Your task to perform on an android device: open app "PUBG MOBILE" (install if not already installed) Image 0: 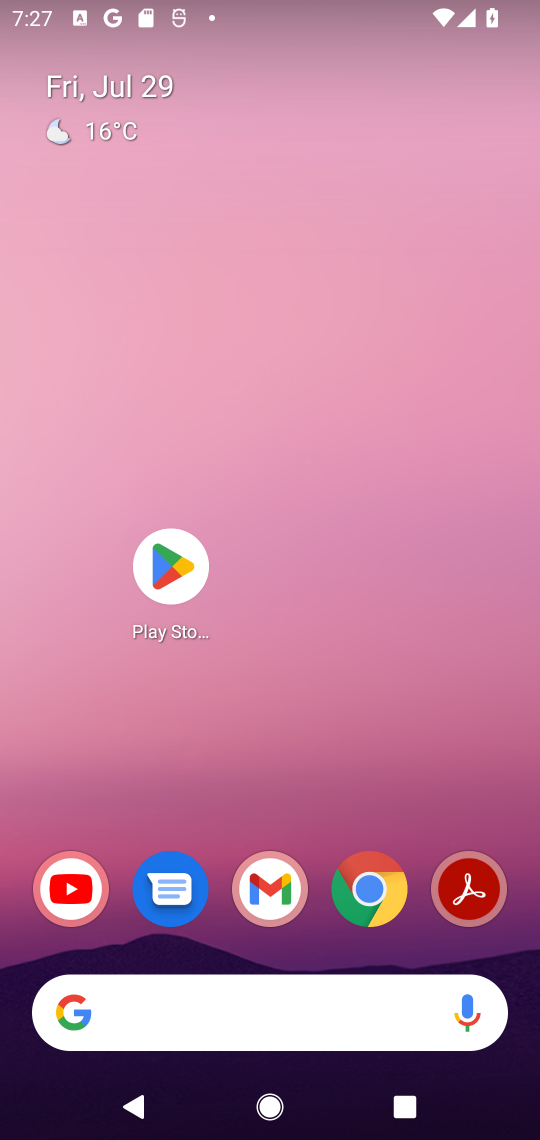
Step 0: click (178, 569)
Your task to perform on an android device: open app "PUBG MOBILE" (install if not already installed) Image 1: 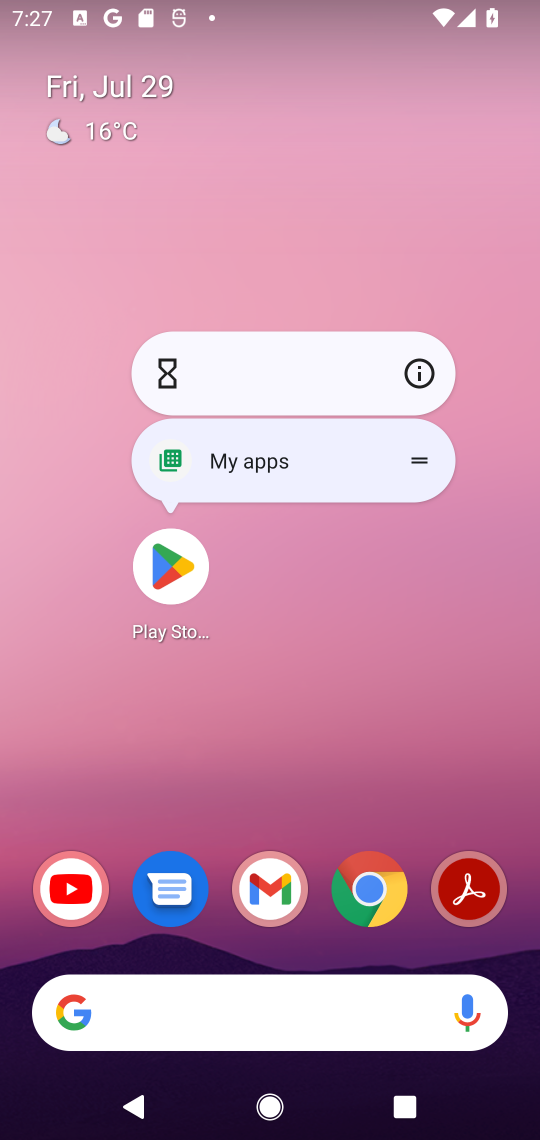
Step 1: click (170, 571)
Your task to perform on an android device: open app "PUBG MOBILE" (install if not already installed) Image 2: 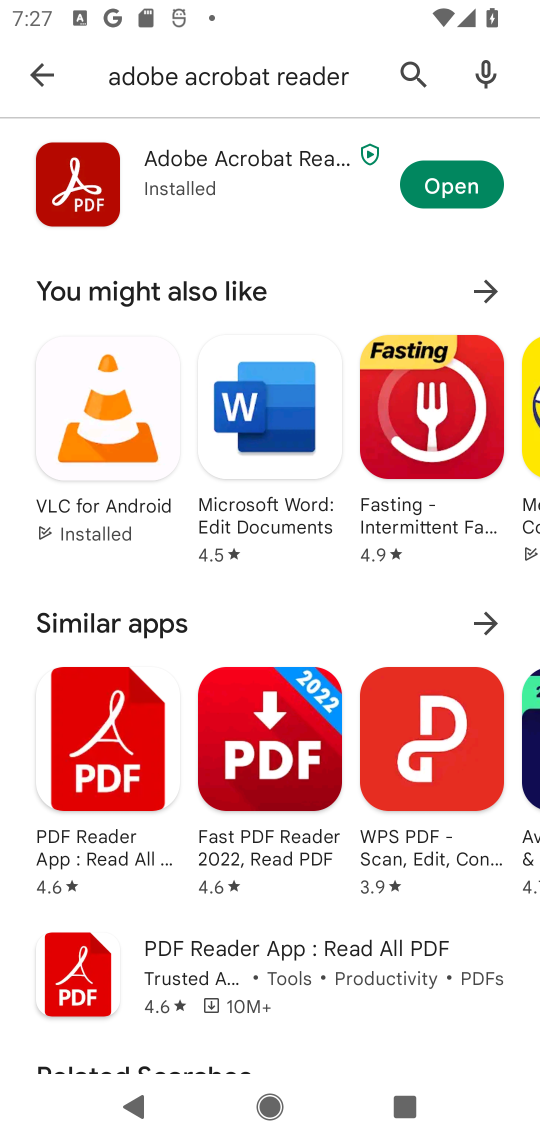
Step 2: click (414, 75)
Your task to perform on an android device: open app "PUBG MOBILE" (install if not already installed) Image 3: 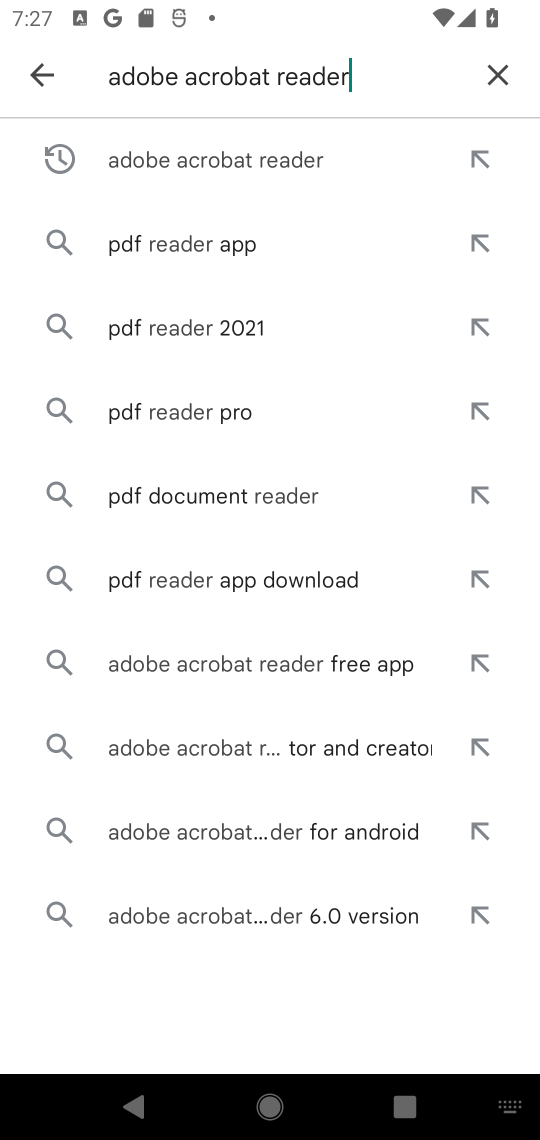
Step 3: click (496, 63)
Your task to perform on an android device: open app "PUBG MOBILE" (install if not already installed) Image 4: 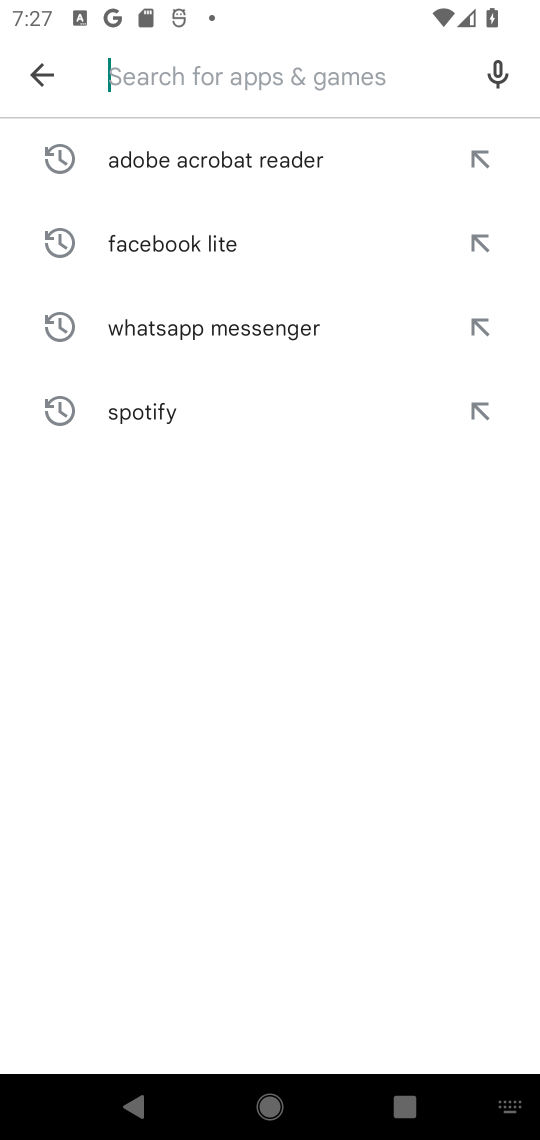
Step 4: type "PUBG MOBILE"
Your task to perform on an android device: open app "PUBG MOBILE" (install if not already installed) Image 5: 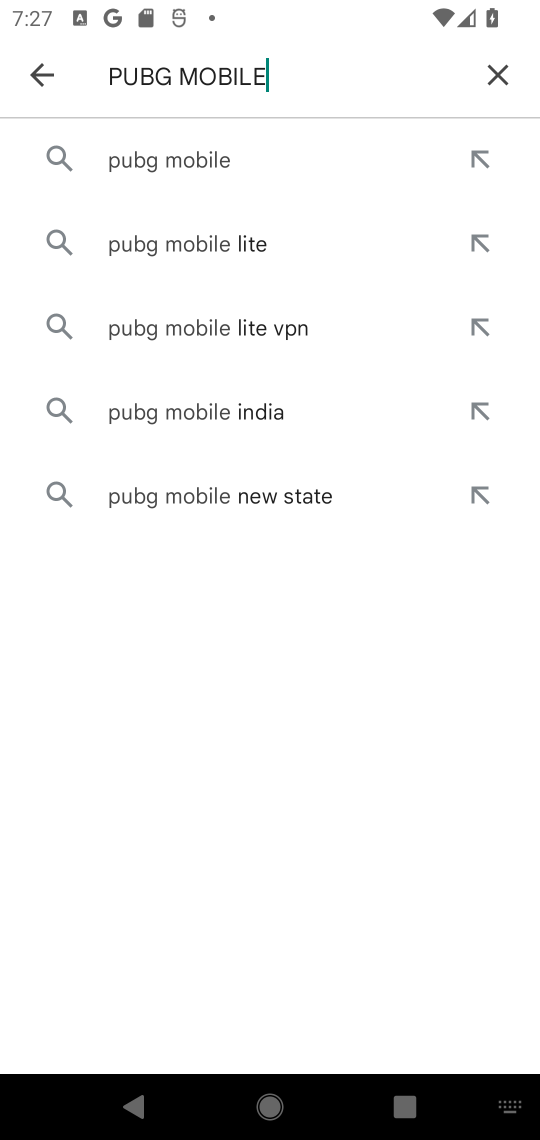
Step 5: click (195, 149)
Your task to perform on an android device: open app "PUBG MOBILE" (install if not already installed) Image 6: 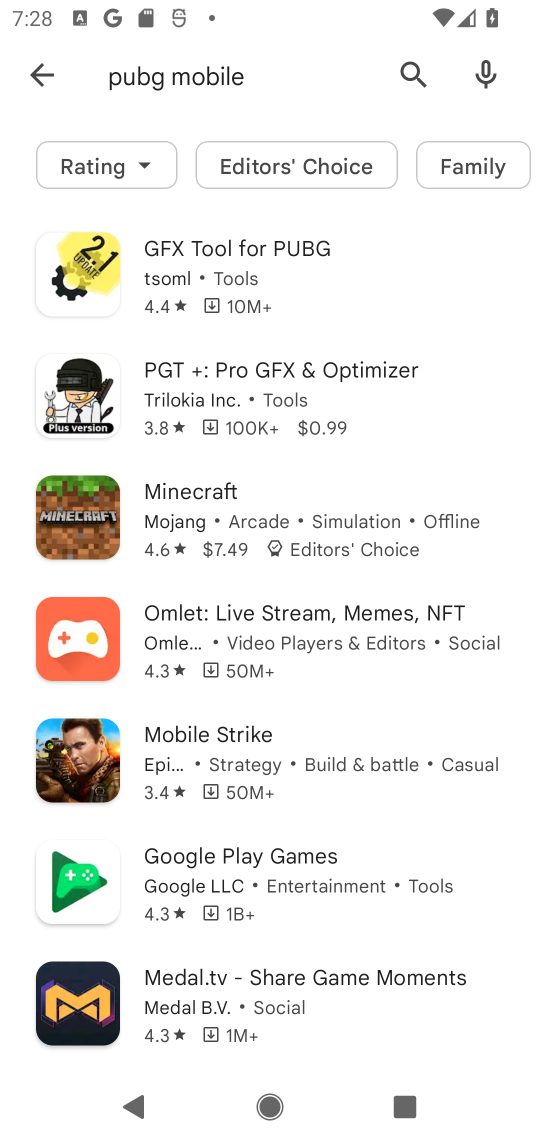
Step 6: task complete